Your task to perform on an android device: change the clock display to digital Image 0: 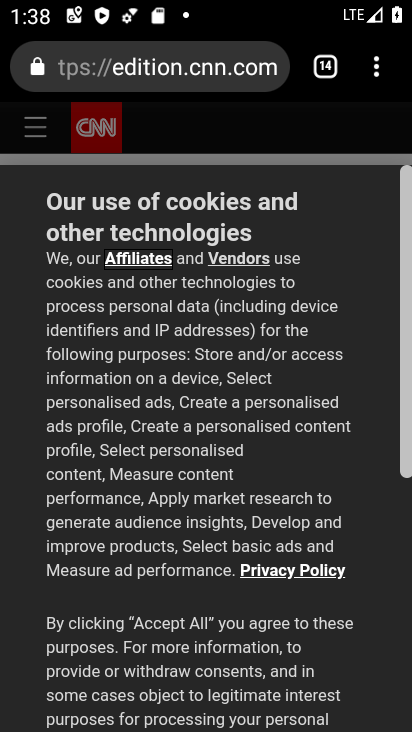
Step 0: press home button
Your task to perform on an android device: change the clock display to digital Image 1: 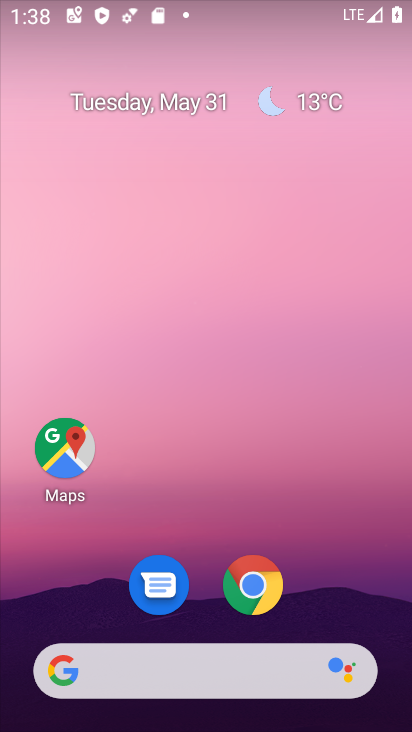
Step 1: drag from (217, 464) to (166, 38)
Your task to perform on an android device: change the clock display to digital Image 2: 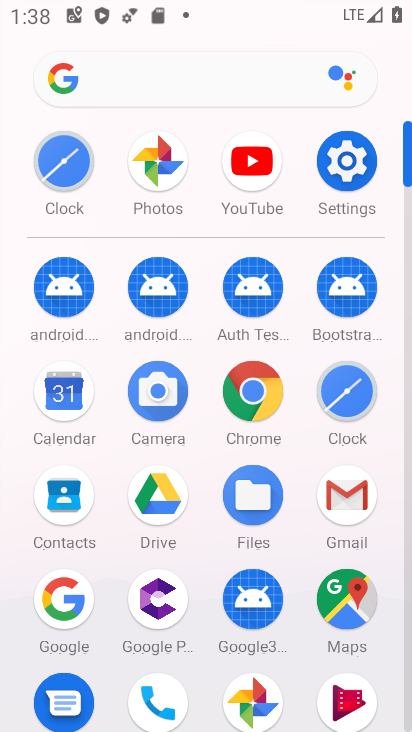
Step 2: click (71, 167)
Your task to perform on an android device: change the clock display to digital Image 3: 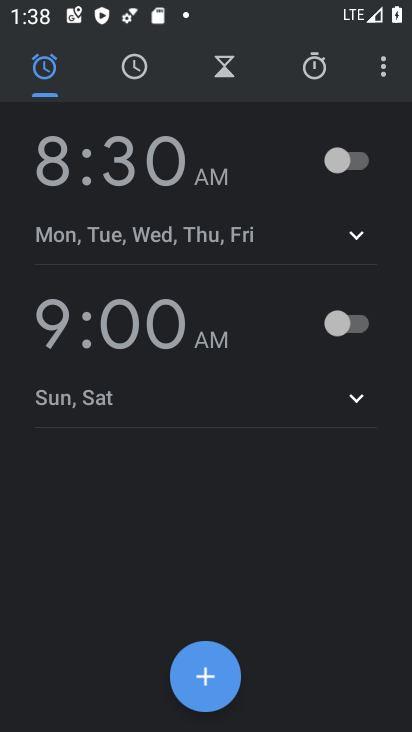
Step 3: click (124, 63)
Your task to perform on an android device: change the clock display to digital Image 4: 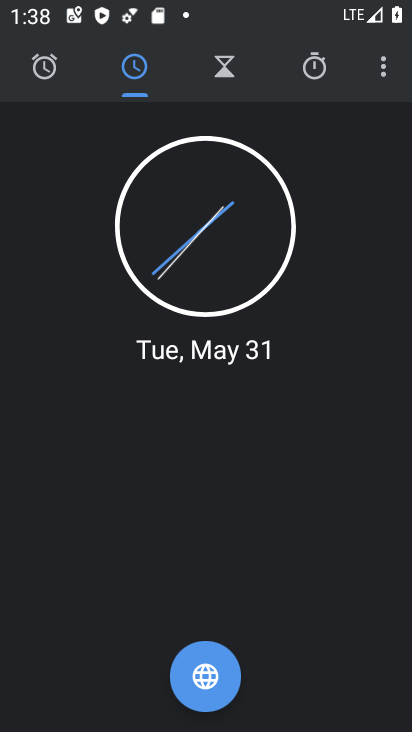
Step 4: click (381, 69)
Your task to perform on an android device: change the clock display to digital Image 5: 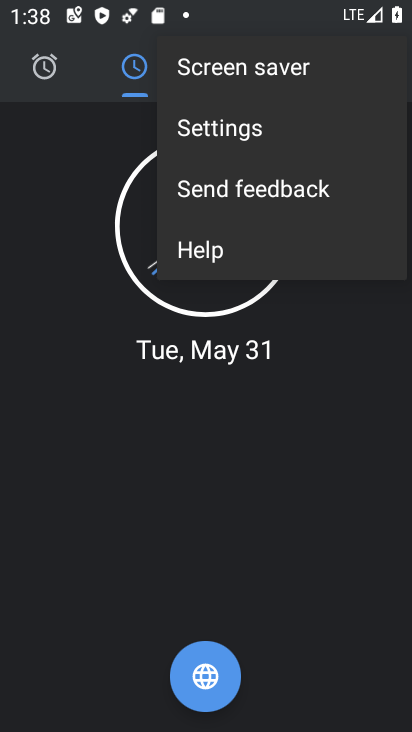
Step 5: click (305, 128)
Your task to perform on an android device: change the clock display to digital Image 6: 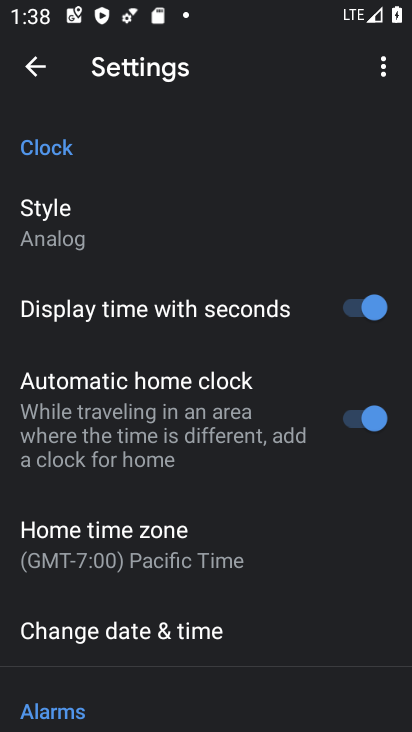
Step 6: click (104, 218)
Your task to perform on an android device: change the clock display to digital Image 7: 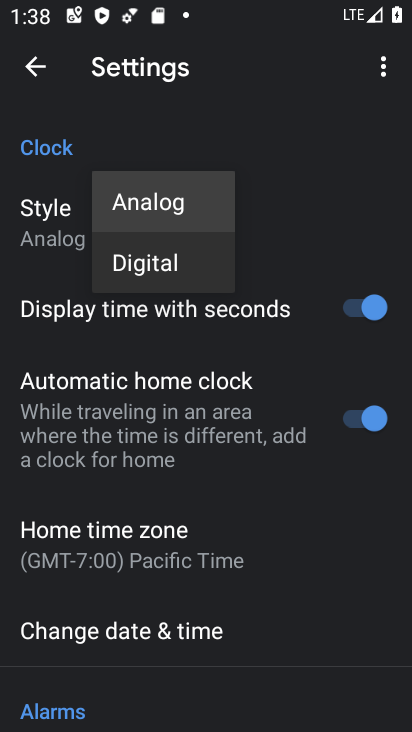
Step 7: click (142, 262)
Your task to perform on an android device: change the clock display to digital Image 8: 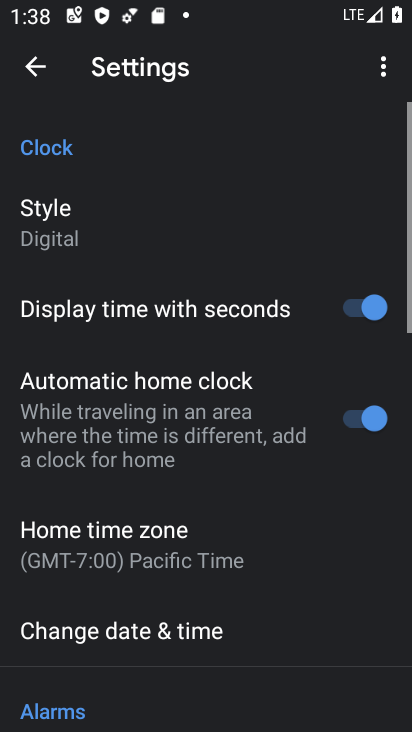
Step 8: click (32, 67)
Your task to perform on an android device: change the clock display to digital Image 9: 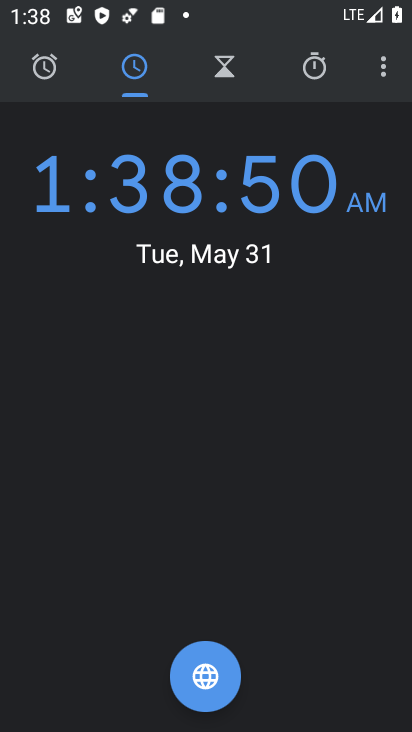
Step 9: task complete